Your task to perform on an android device: toggle translation in the chrome app Image 0: 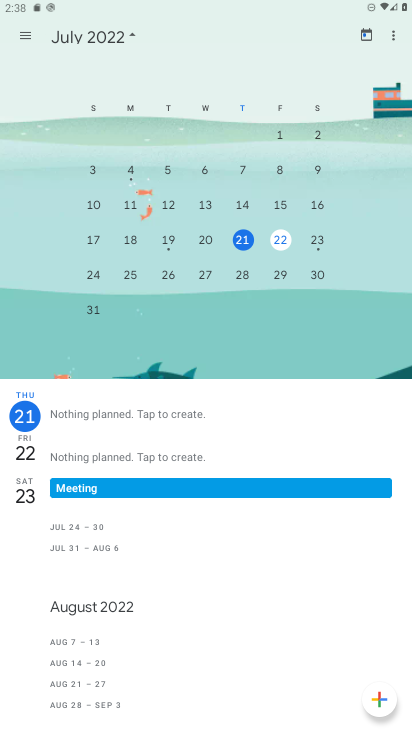
Step 0: press home button
Your task to perform on an android device: toggle translation in the chrome app Image 1: 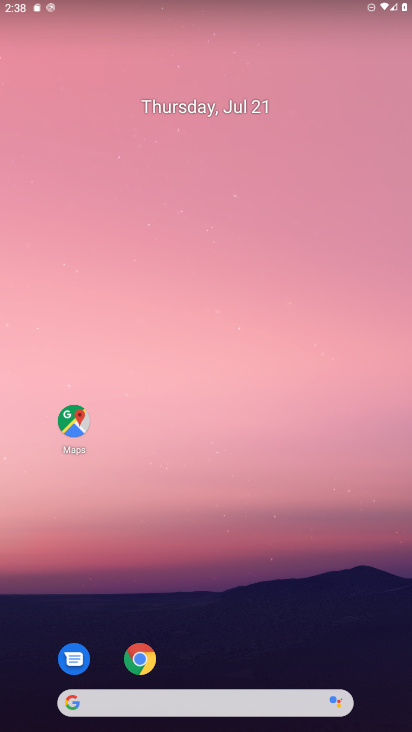
Step 1: click (147, 659)
Your task to perform on an android device: toggle translation in the chrome app Image 2: 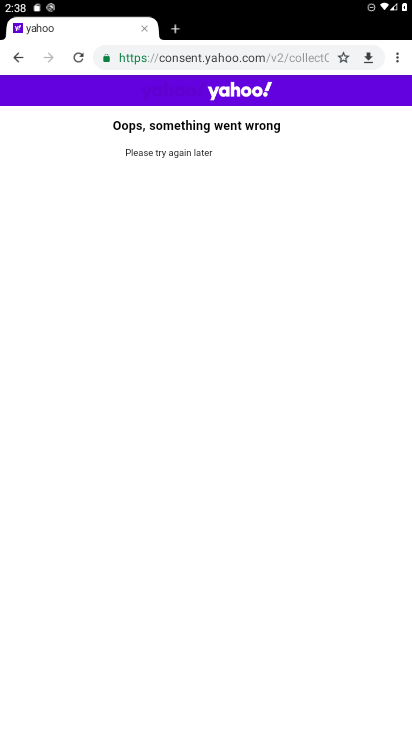
Step 2: click (398, 49)
Your task to perform on an android device: toggle translation in the chrome app Image 3: 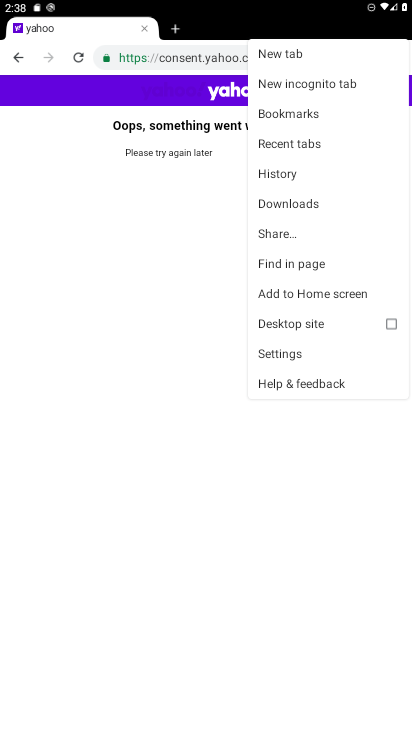
Step 3: click (293, 357)
Your task to perform on an android device: toggle translation in the chrome app Image 4: 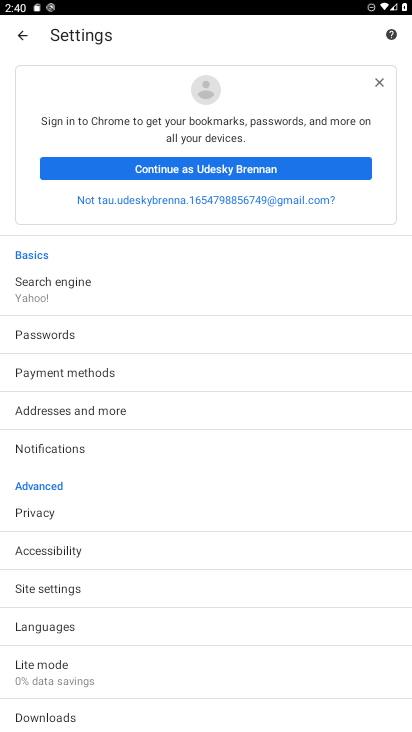
Step 4: drag from (43, 679) to (229, 268)
Your task to perform on an android device: toggle translation in the chrome app Image 5: 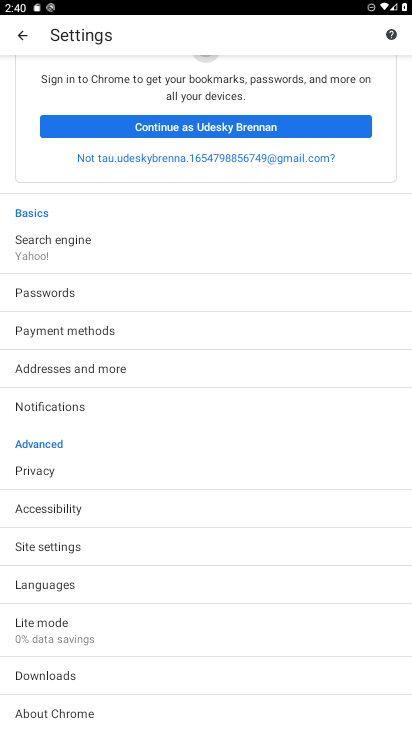
Step 5: click (36, 595)
Your task to perform on an android device: toggle translation in the chrome app Image 6: 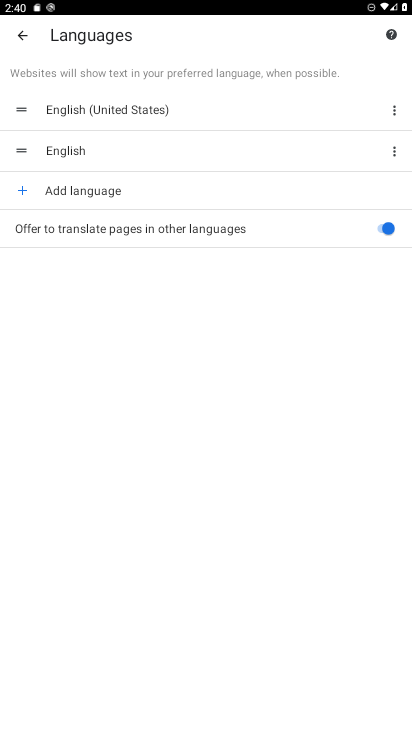
Step 6: click (391, 228)
Your task to perform on an android device: toggle translation in the chrome app Image 7: 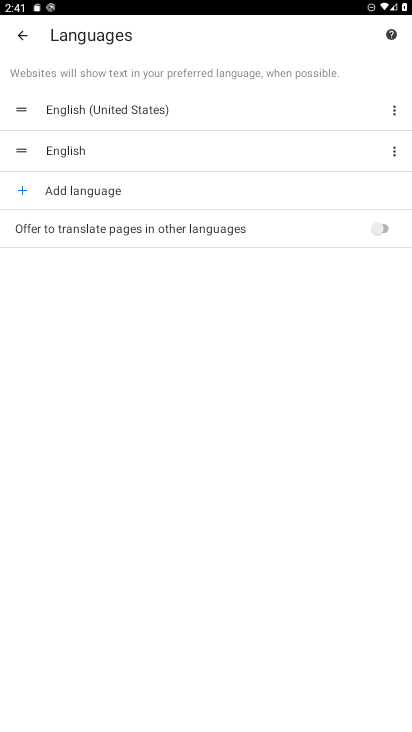
Step 7: task complete